Your task to perform on an android device: open app "eBay: The shopping marketplace" (install if not already installed), go to login, and select forgot password Image 0: 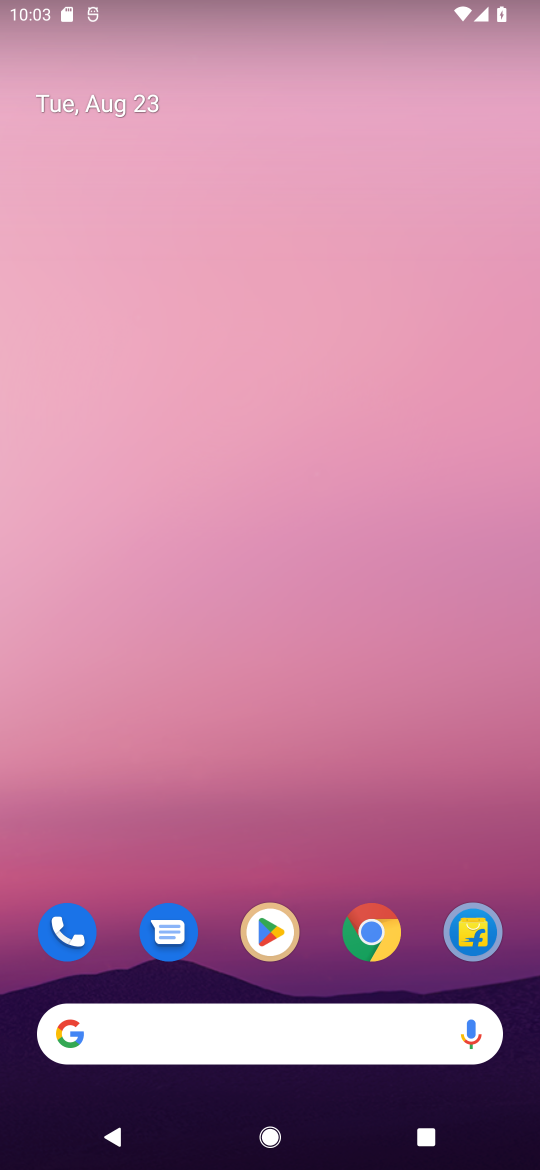
Step 0: click (277, 930)
Your task to perform on an android device: open app "eBay: The shopping marketplace" (install if not already installed), go to login, and select forgot password Image 1: 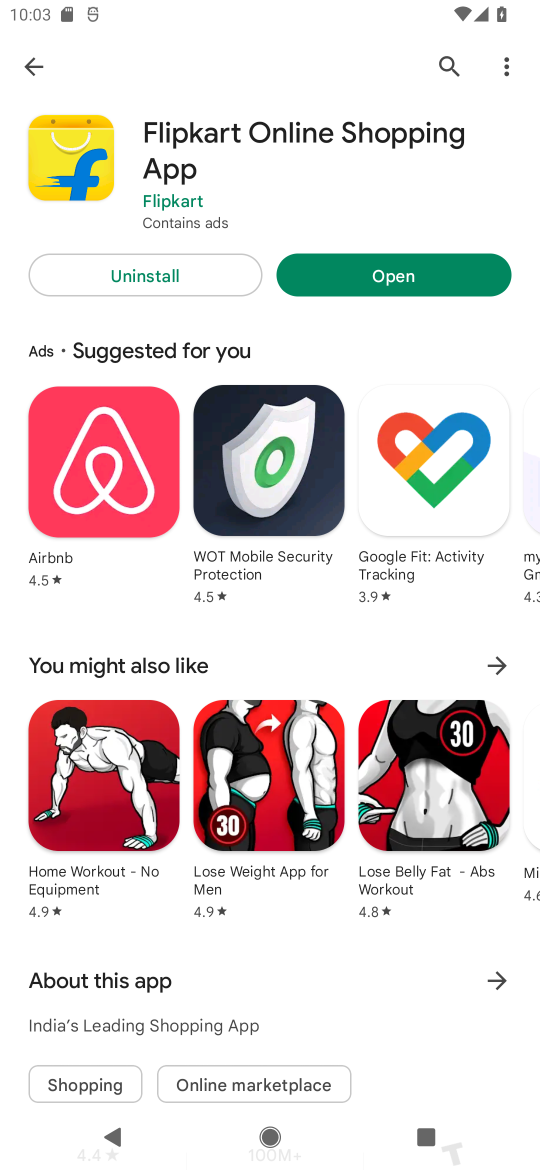
Step 1: click (446, 59)
Your task to perform on an android device: open app "eBay: The shopping marketplace" (install if not already installed), go to login, and select forgot password Image 2: 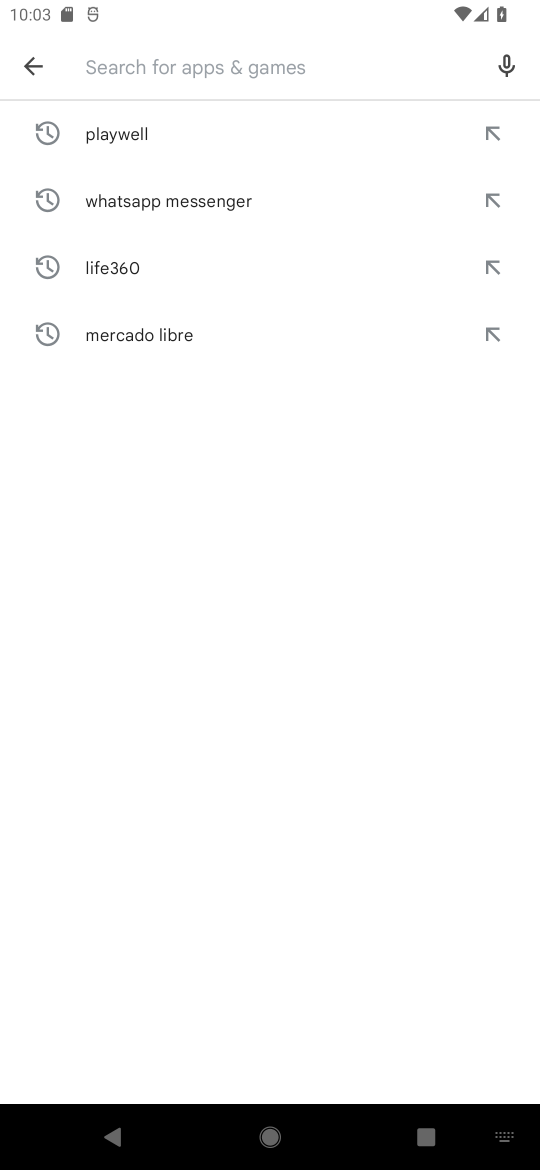
Step 2: click (136, 73)
Your task to perform on an android device: open app "eBay: The shopping marketplace" (install if not already installed), go to login, and select forgot password Image 3: 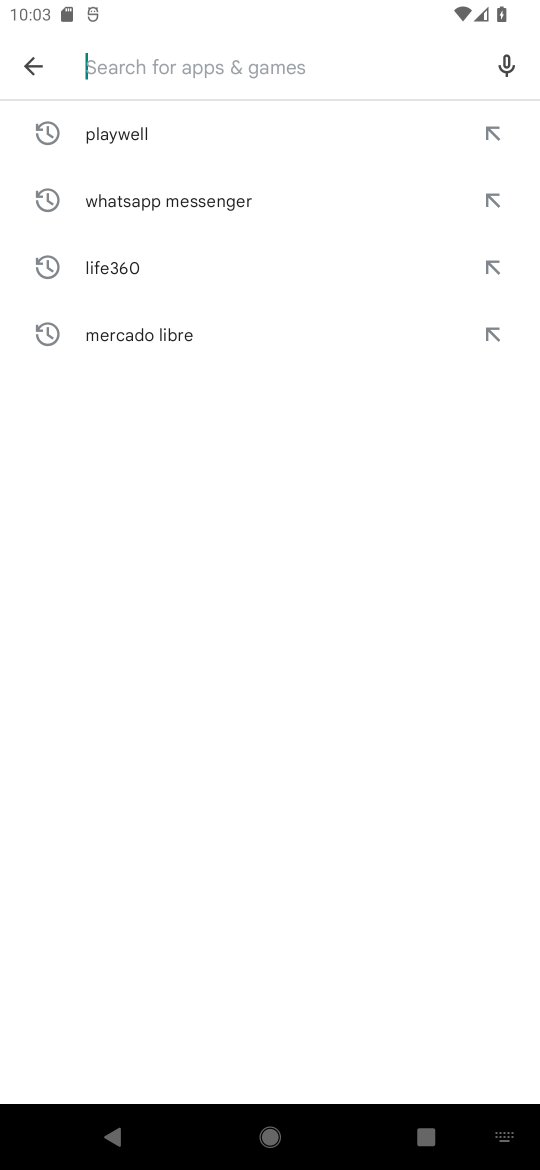
Step 3: type "The shopping marketplace"
Your task to perform on an android device: open app "eBay: The shopping marketplace" (install if not already installed), go to login, and select forgot password Image 4: 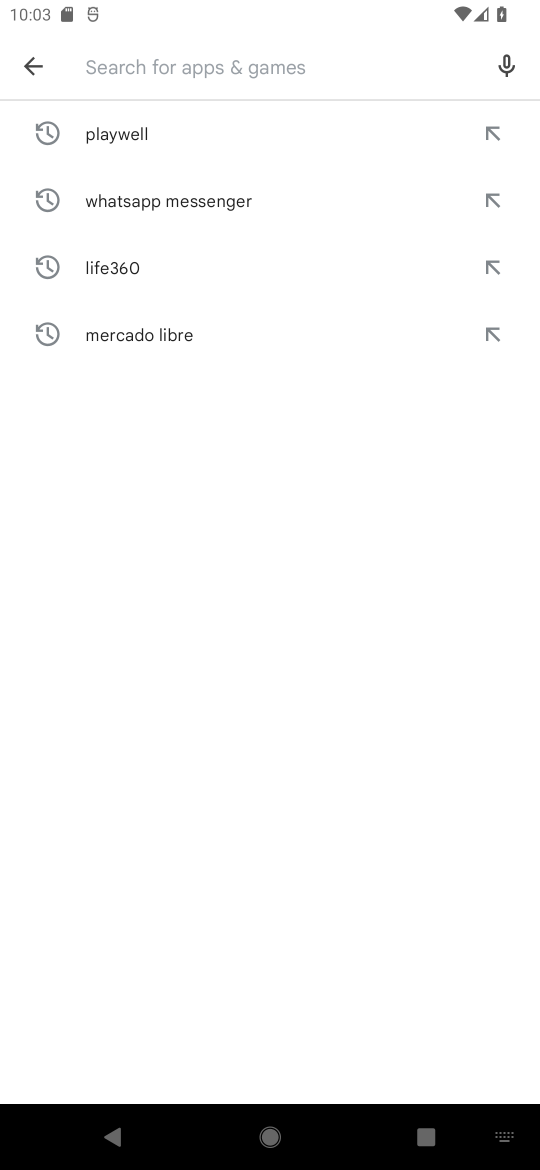
Step 4: click (303, 656)
Your task to perform on an android device: open app "eBay: The shopping marketplace" (install if not already installed), go to login, and select forgot password Image 5: 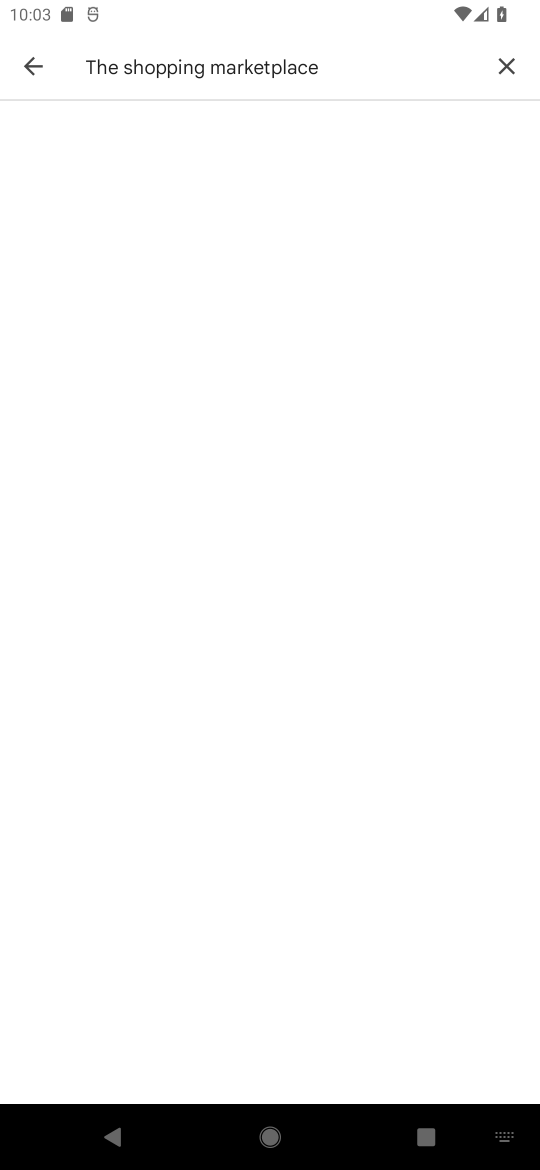
Step 5: click (502, 65)
Your task to perform on an android device: open app "eBay: The shopping marketplace" (install if not already installed), go to login, and select forgot password Image 6: 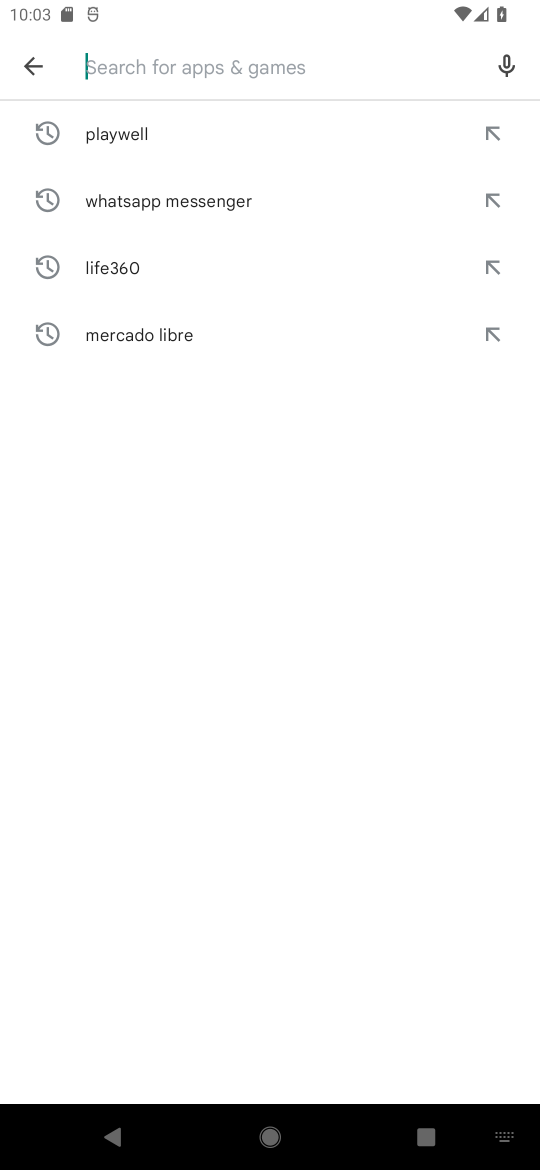
Step 6: click (209, 51)
Your task to perform on an android device: open app "eBay: The shopping marketplace" (install if not already installed), go to login, and select forgot password Image 7: 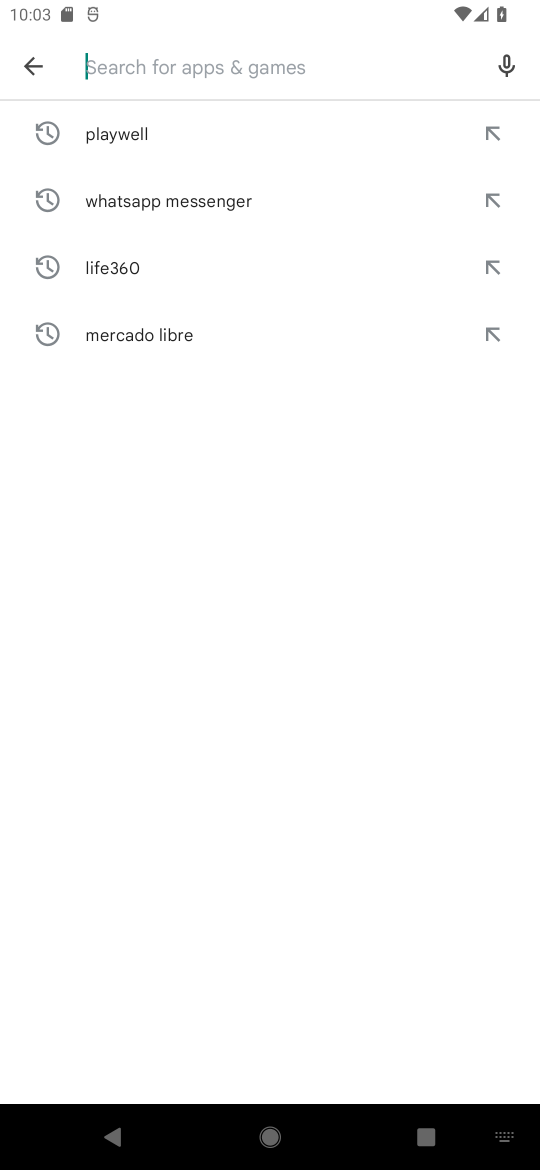
Step 7: type "ebay"
Your task to perform on an android device: open app "eBay: The shopping marketplace" (install if not already installed), go to login, and select forgot password Image 8: 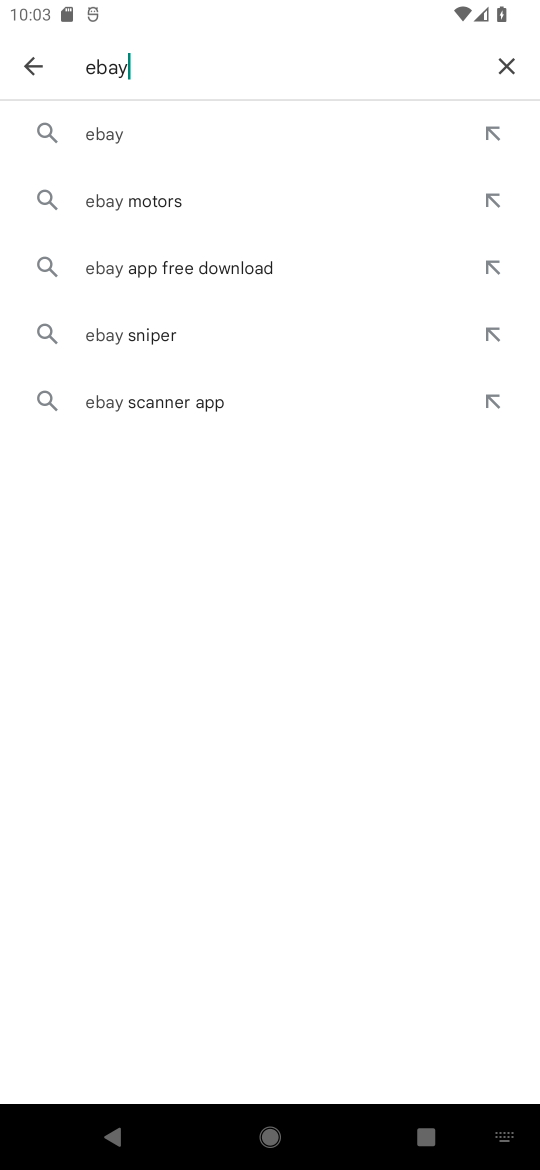
Step 8: click (153, 138)
Your task to perform on an android device: open app "eBay: The shopping marketplace" (install if not already installed), go to login, and select forgot password Image 9: 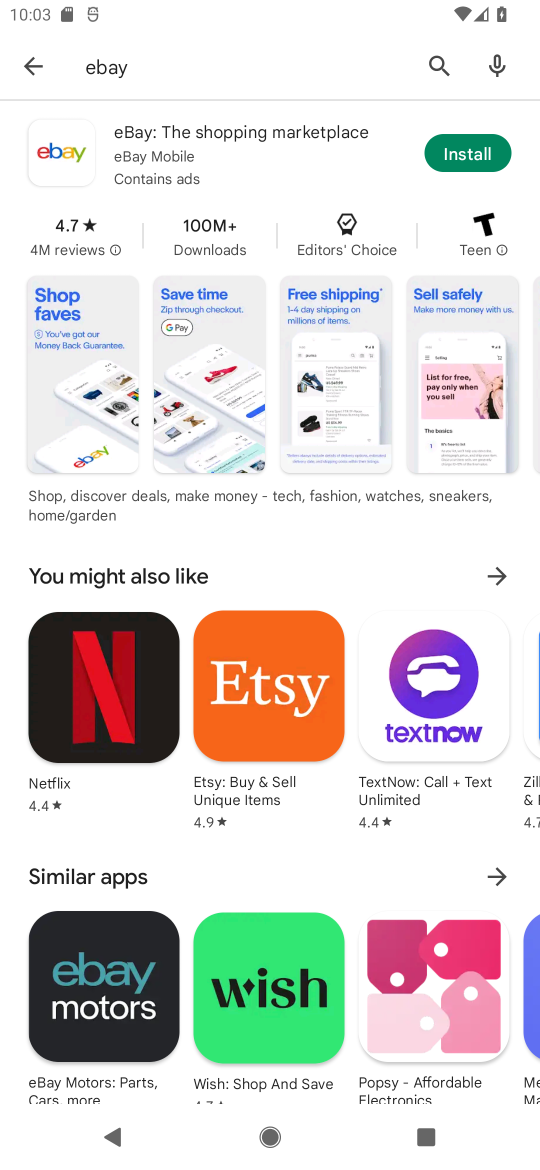
Step 9: click (493, 142)
Your task to perform on an android device: open app "eBay: The shopping marketplace" (install if not already installed), go to login, and select forgot password Image 10: 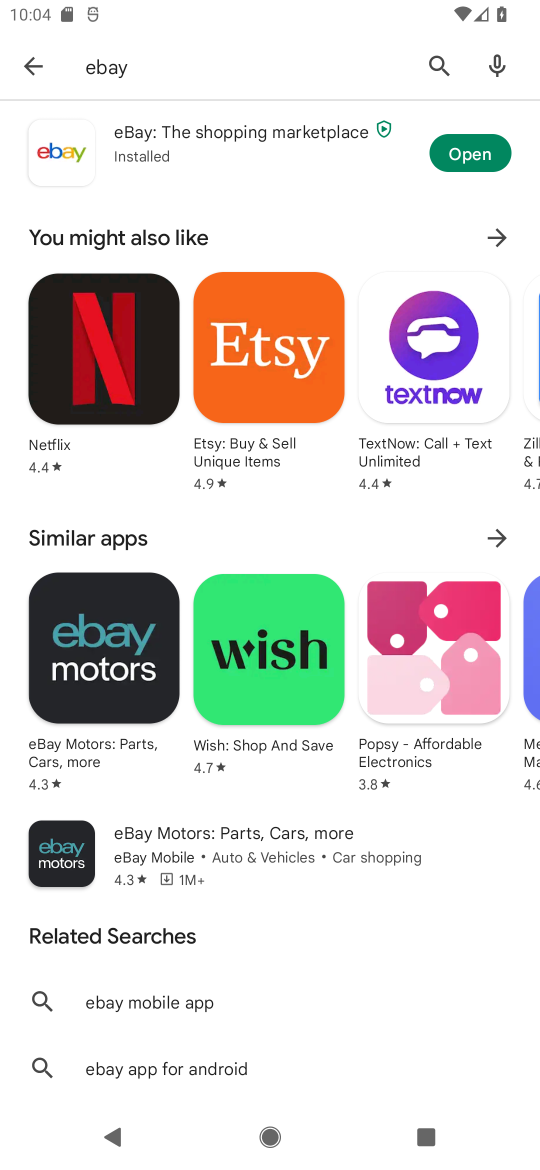
Step 10: click (469, 153)
Your task to perform on an android device: open app "eBay: The shopping marketplace" (install if not already installed), go to login, and select forgot password Image 11: 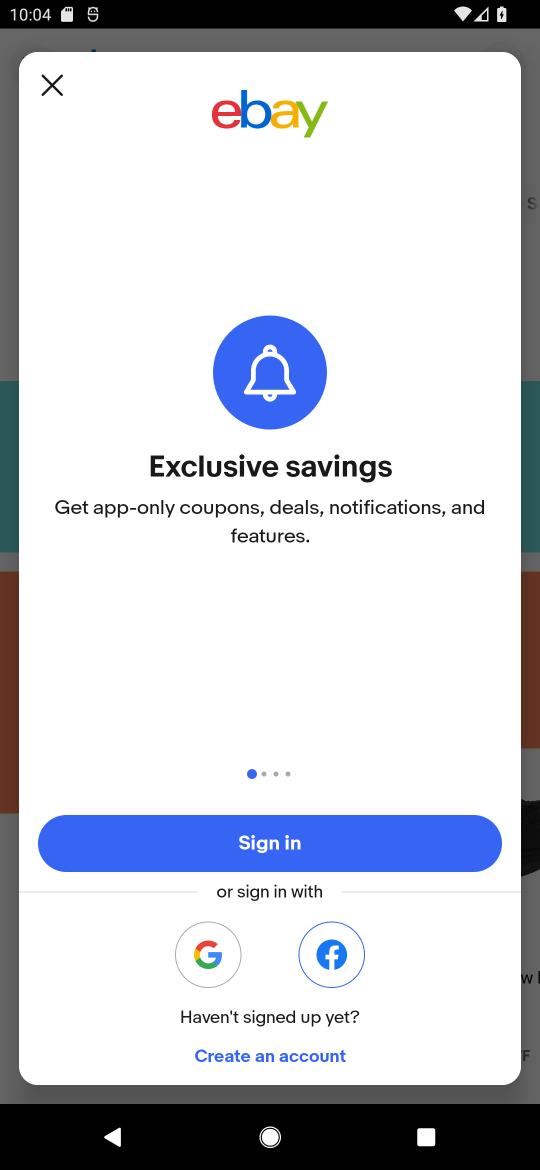
Step 11: click (47, 89)
Your task to perform on an android device: open app "eBay: The shopping marketplace" (install if not already installed), go to login, and select forgot password Image 12: 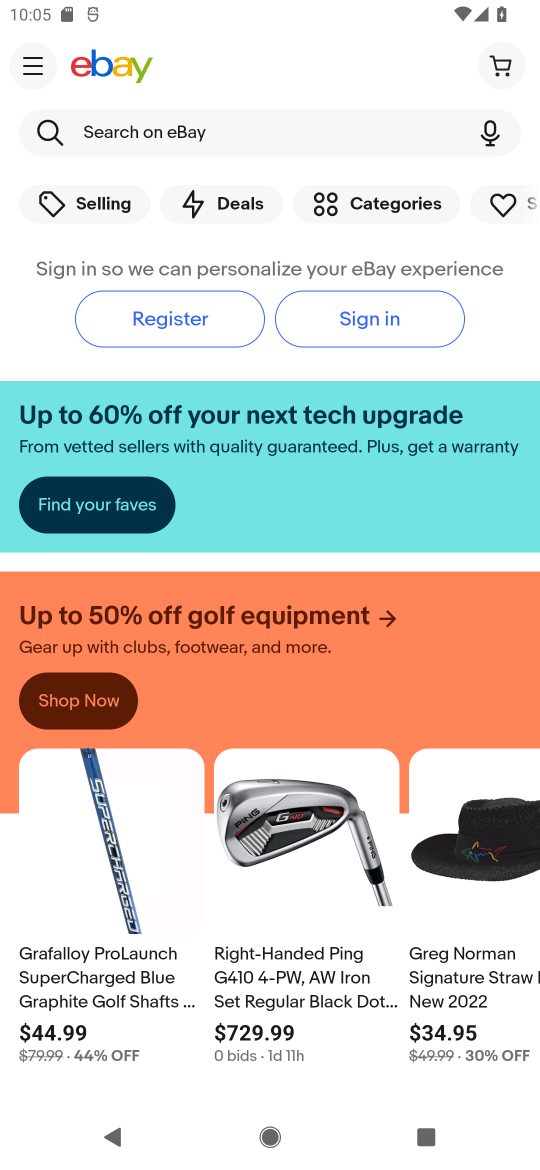
Step 12: click (497, 55)
Your task to perform on an android device: open app "eBay: The shopping marketplace" (install if not already installed), go to login, and select forgot password Image 13: 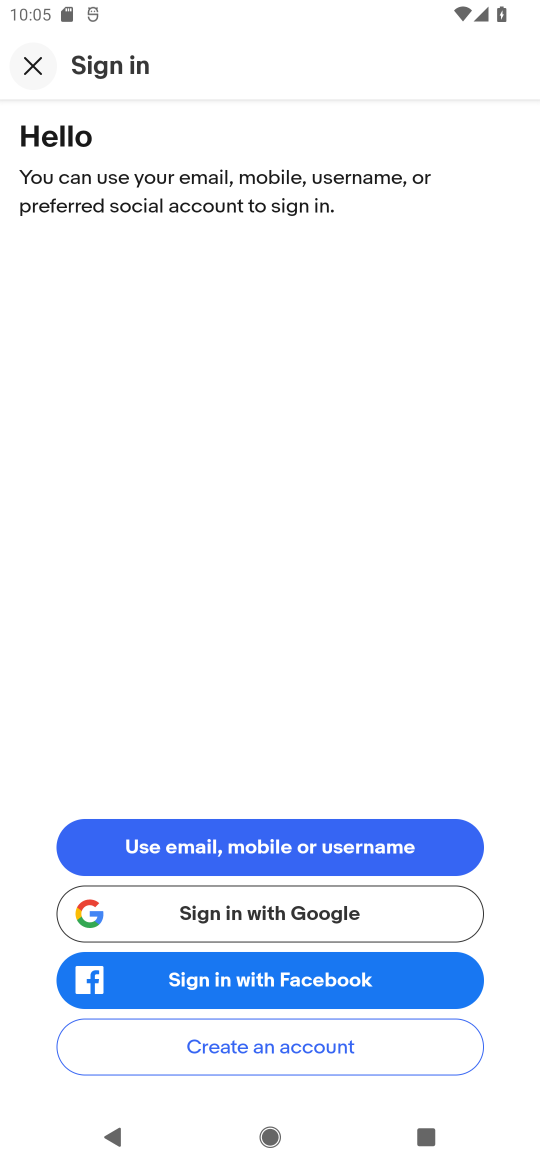
Step 13: click (259, 841)
Your task to perform on an android device: open app "eBay: The shopping marketplace" (install if not already installed), go to login, and select forgot password Image 14: 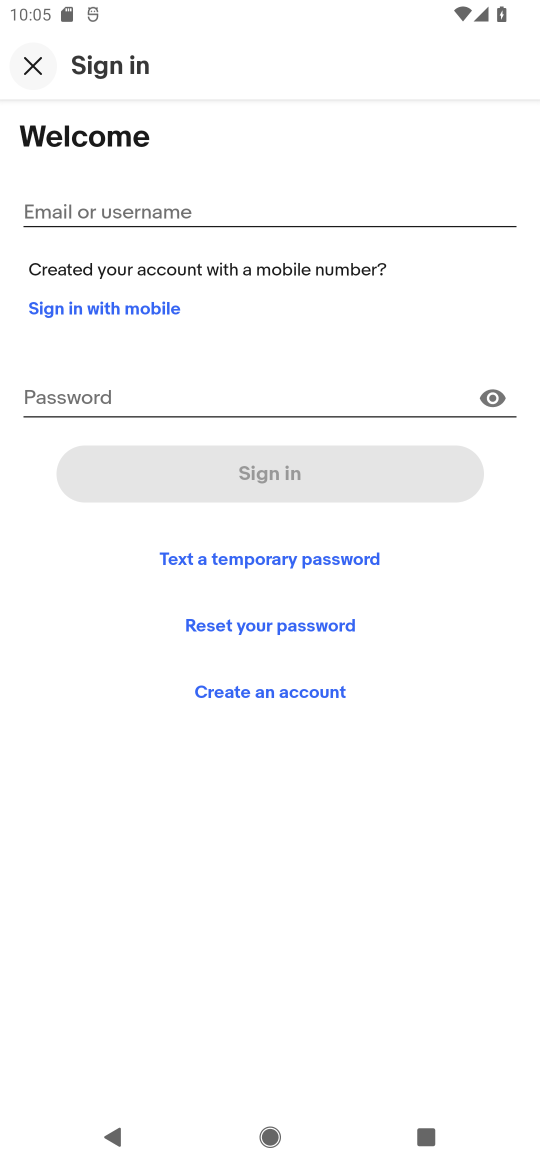
Step 14: click (290, 630)
Your task to perform on an android device: open app "eBay: The shopping marketplace" (install if not already installed), go to login, and select forgot password Image 15: 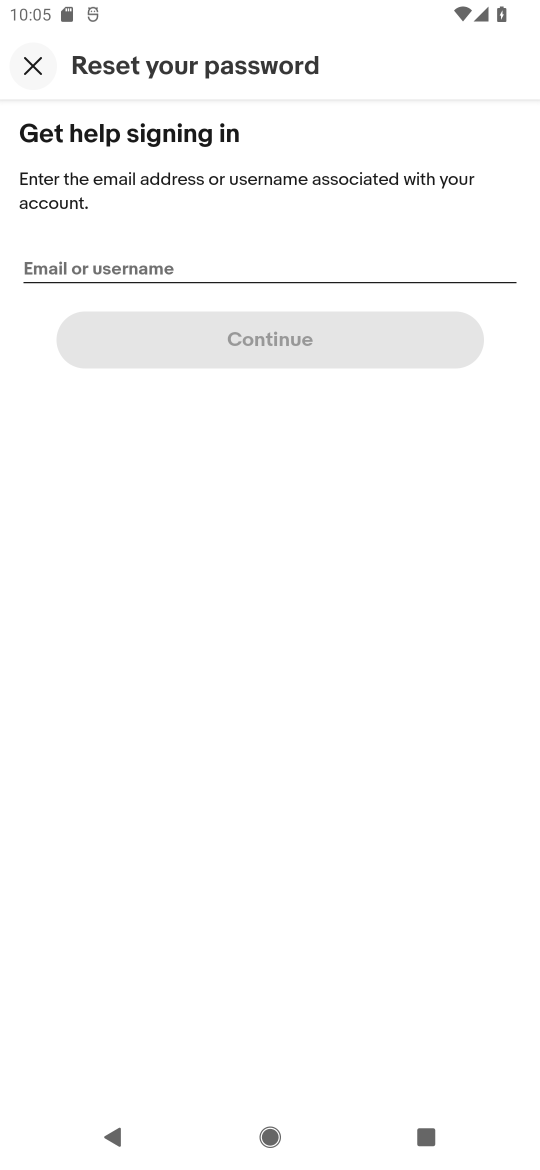
Step 15: task complete